Your task to perform on an android device: open wifi settings Image 0: 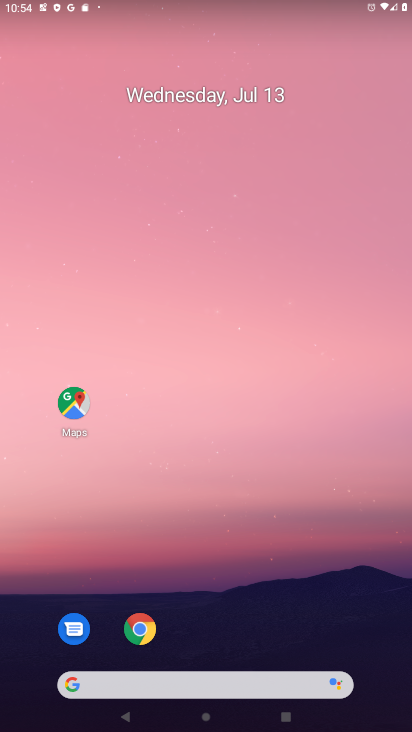
Step 0: drag from (292, 630) to (236, 285)
Your task to perform on an android device: open wifi settings Image 1: 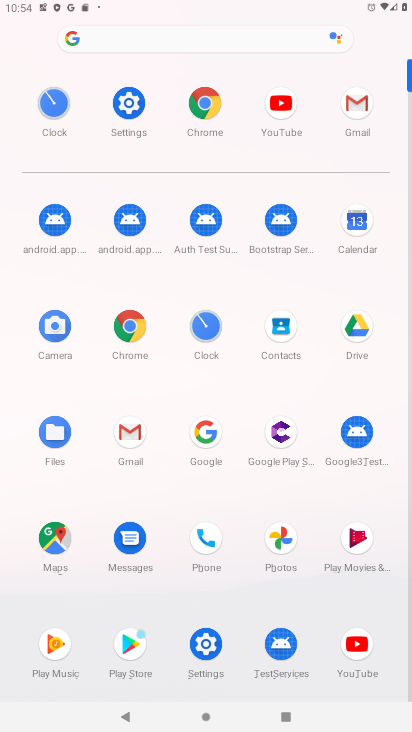
Step 1: click (215, 644)
Your task to perform on an android device: open wifi settings Image 2: 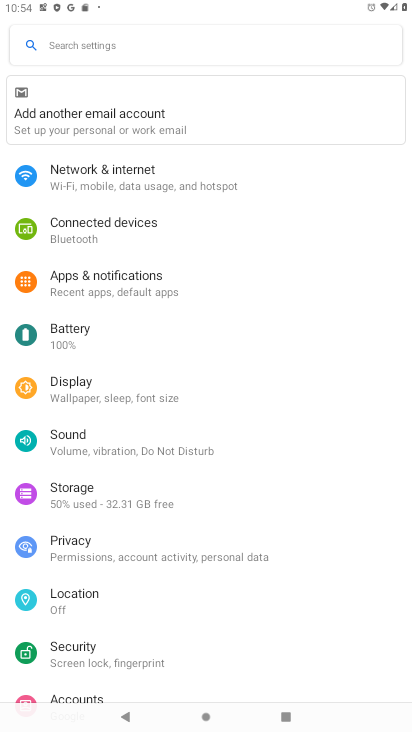
Step 2: click (148, 174)
Your task to perform on an android device: open wifi settings Image 3: 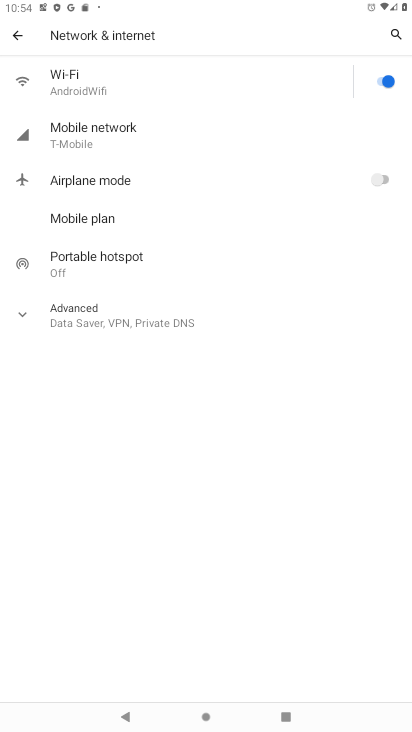
Step 3: task complete